Your task to perform on an android device: Open Youtube and go to the subscriptions tab Image 0: 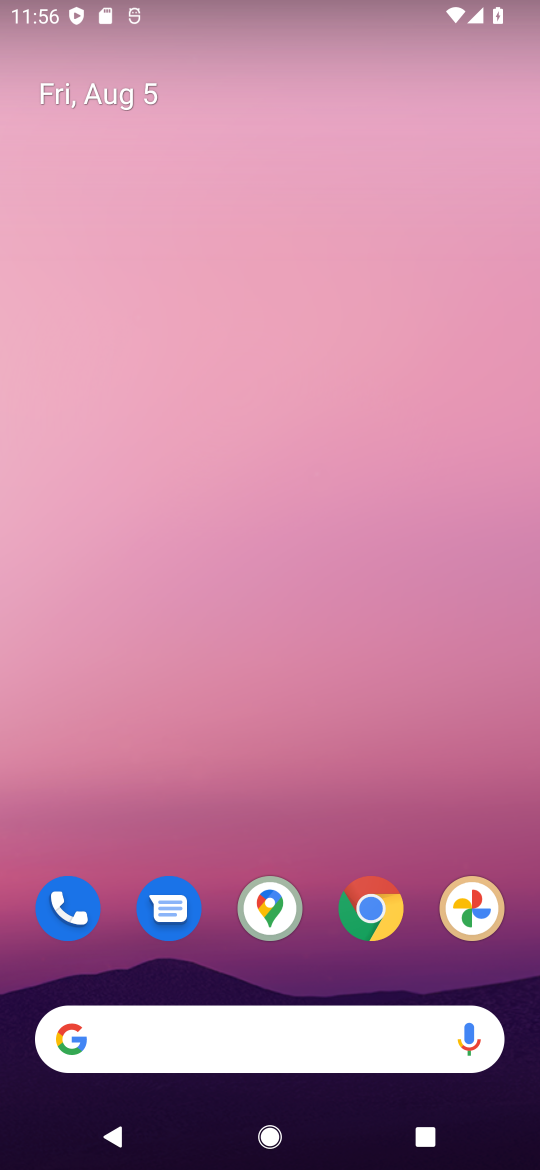
Step 0: drag from (337, 934) to (371, 122)
Your task to perform on an android device: Open Youtube and go to the subscriptions tab Image 1: 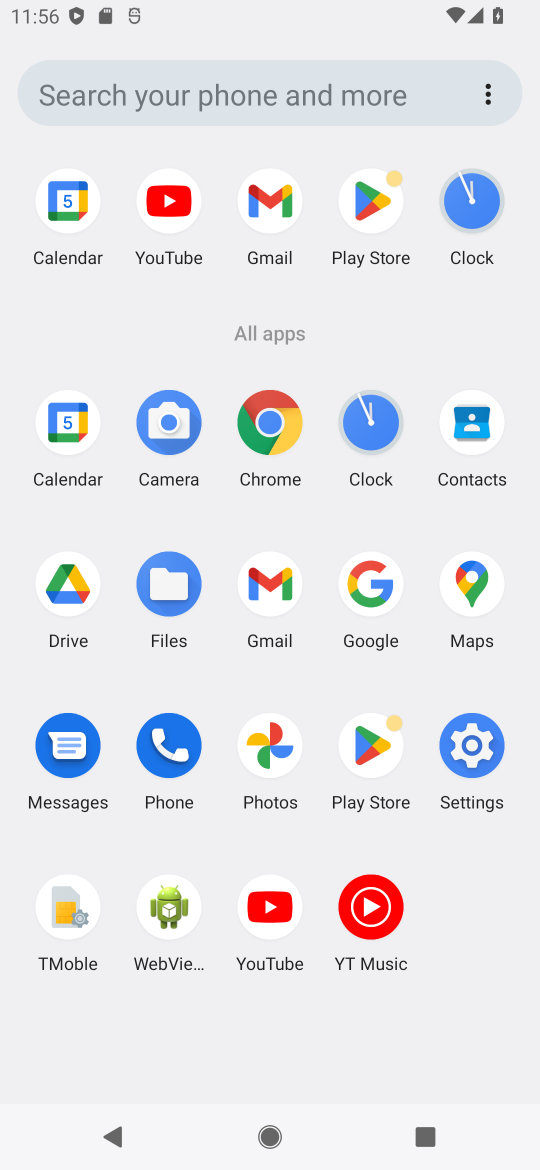
Step 1: click (277, 915)
Your task to perform on an android device: Open Youtube and go to the subscriptions tab Image 2: 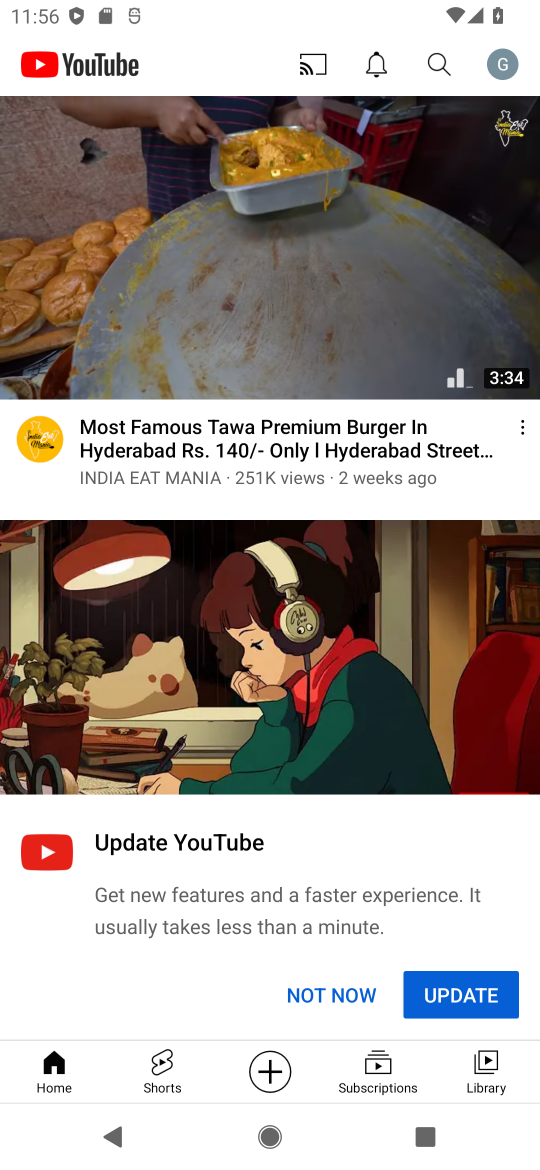
Step 2: click (374, 1060)
Your task to perform on an android device: Open Youtube and go to the subscriptions tab Image 3: 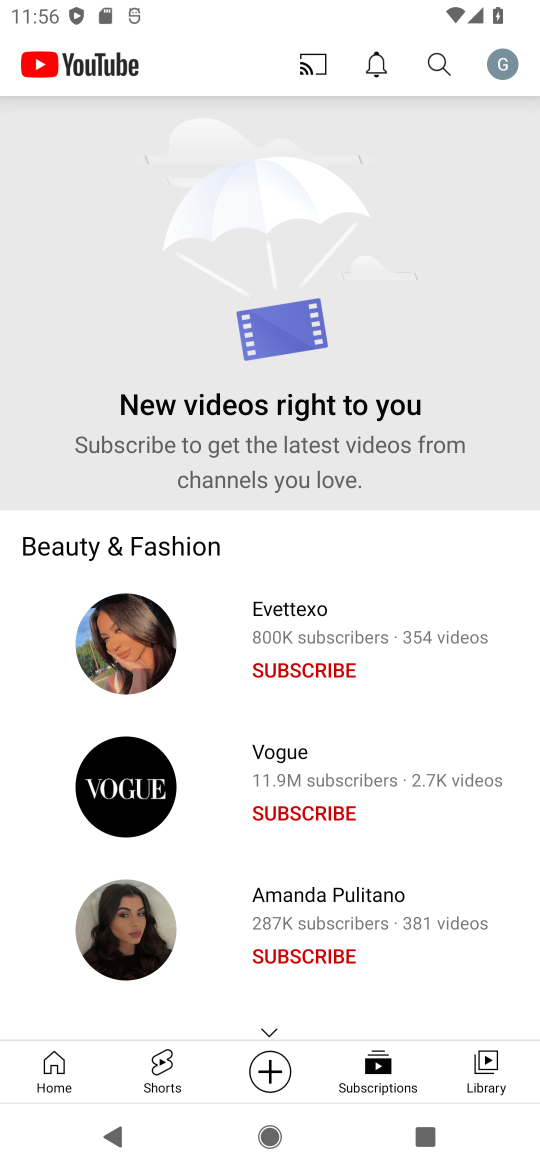
Step 3: task complete